Your task to perform on an android device: turn on javascript in the chrome app Image 0: 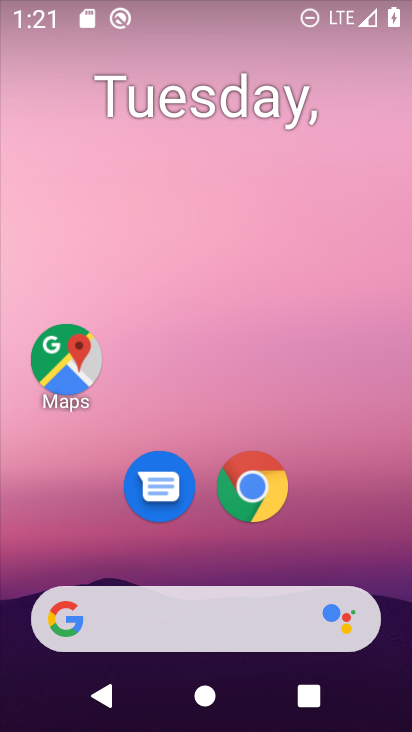
Step 0: click (238, 490)
Your task to perform on an android device: turn on javascript in the chrome app Image 1: 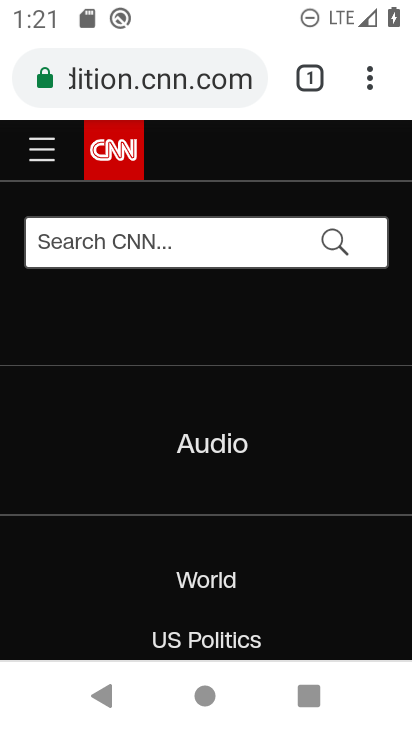
Step 1: click (371, 85)
Your task to perform on an android device: turn on javascript in the chrome app Image 2: 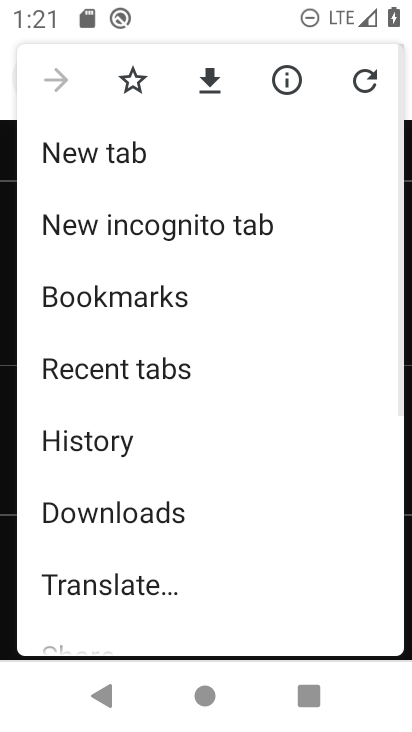
Step 2: drag from (68, 613) to (356, 84)
Your task to perform on an android device: turn on javascript in the chrome app Image 3: 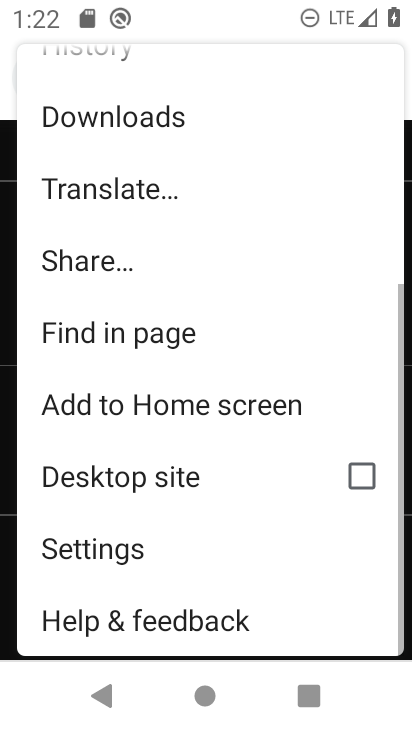
Step 3: click (127, 552)
Your task to perform on an android device: turn on javascript in the chrome app Image 4: 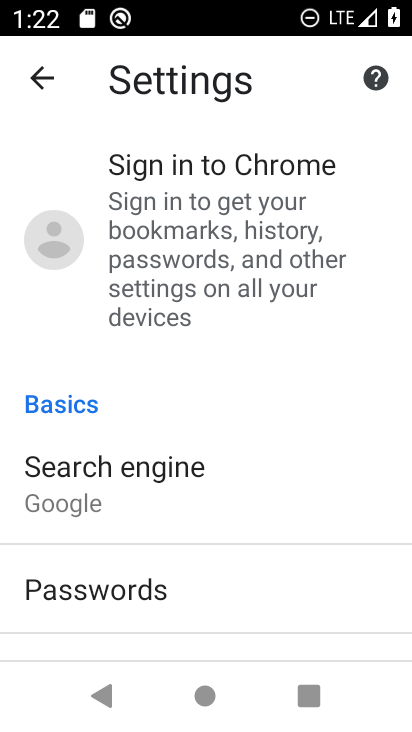
Step 4: drag from (4, 475) to (219, 92)
Your task to perform on an android device: turn on javascript in the chrome app Image 5: 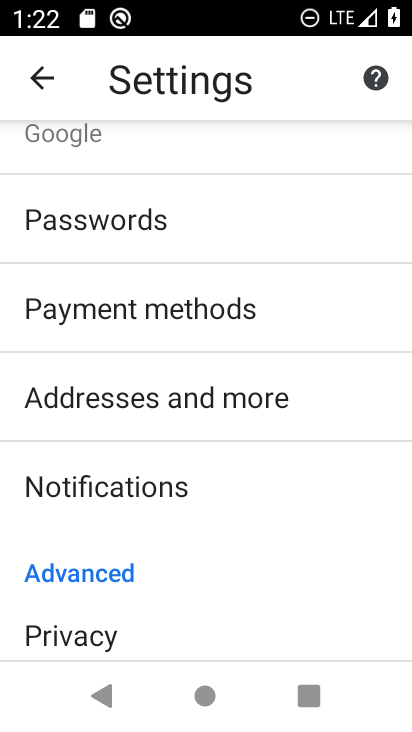
Step 5: drag from (0, 573) to (213, 242)
Your task to perform on an android device: turn on javascript in the chrome app Image 6: 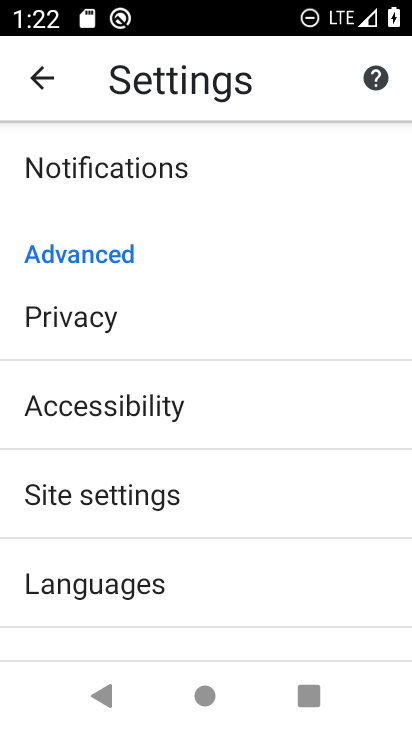
Step 6: click (96, 503)
Your task to perform on an android device: turn on javascript in the chrome app Image 7: 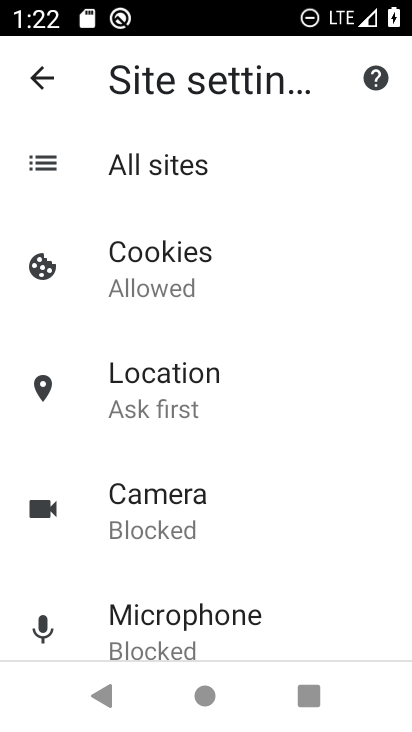
Step 7: drag from (37, 525) to (306, 100)
Your task to perform on an android device: turn on javascript in the chrome app Image 8: 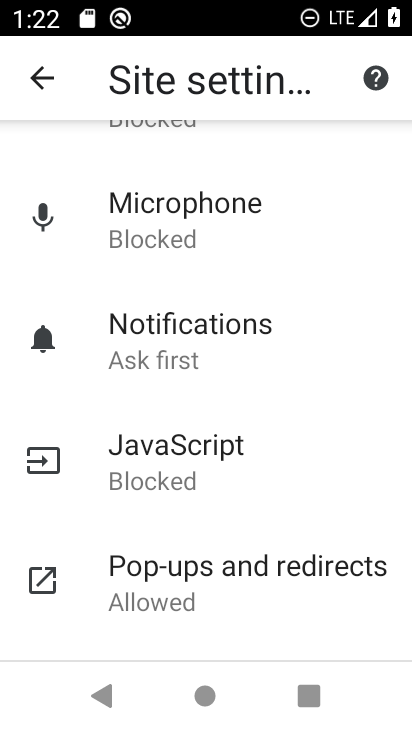
Step 8: click (119, 454)
Your task to perform on an android device: turn on javascript in the chrome app Image 9: 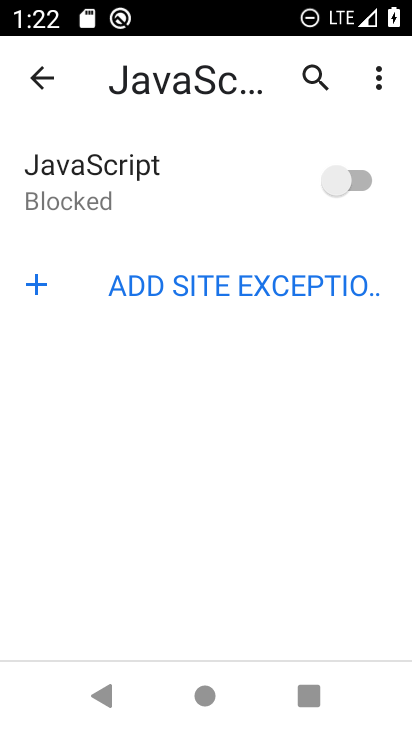
Step 9: click (327, 186)
Your task to perform on an android device: turn on javascript in the chrome app Image 10: 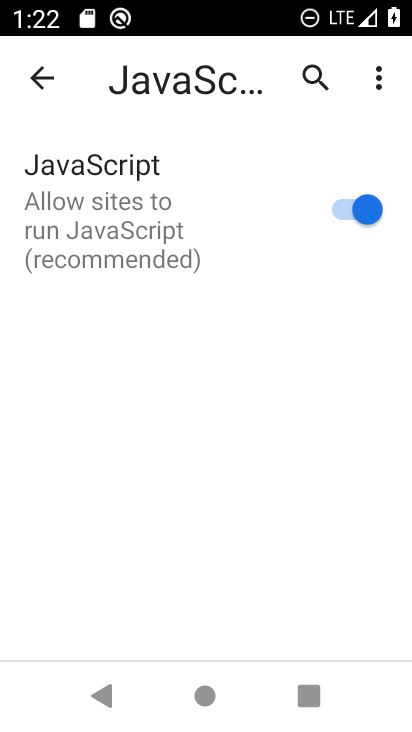
Step 10: task complete